Your task to perform on an android device: Open calendar and show me the first week of next month Image 0: 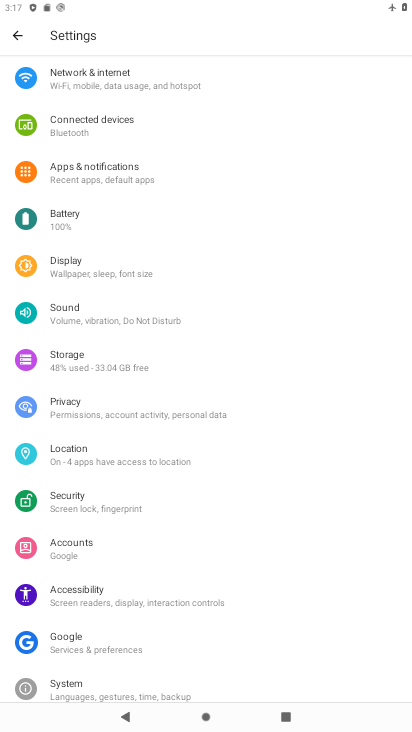
Step 0: press home button
Your task to perform on an android device: Open calendar and show me the first week of next month Image 1: 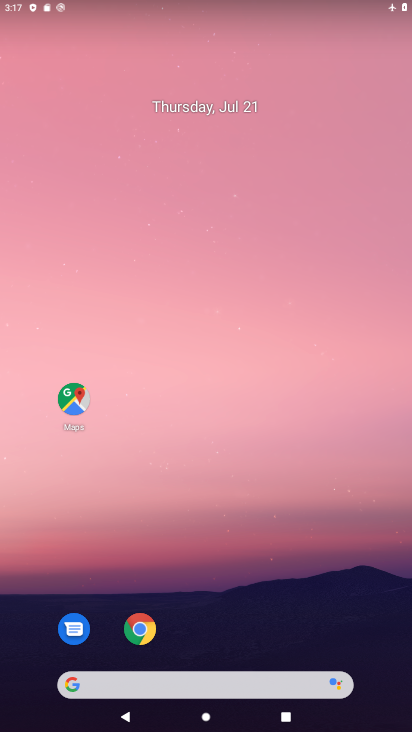
Step 1: drag from (369, 512) to (321, 99)
Your task to perform on an android device: Open calendar and show me the first week of next month Image 2: 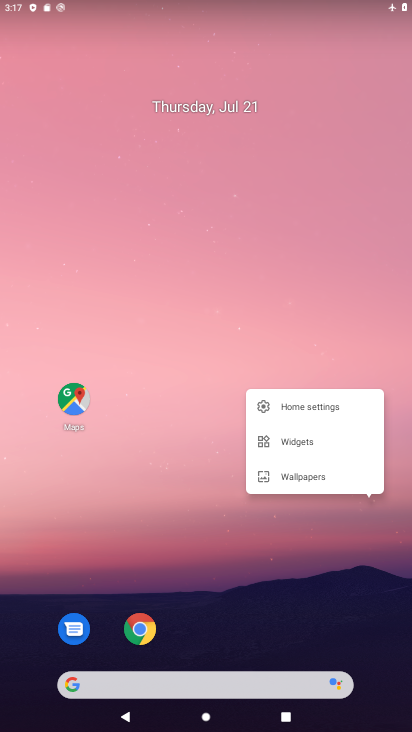
Step 2: click (321, 99)
Your task to perform on an android device: Open calendar and show me the first week of next month Image 3: 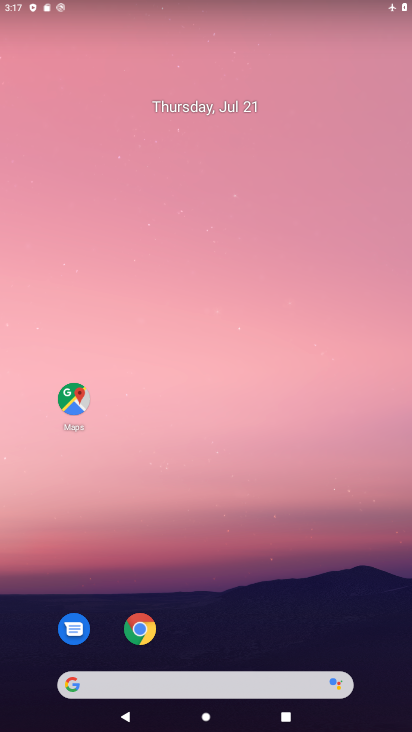
Step 3: drag from (278, 590) to (288, 0)
Your task to perform on an android device: Open calendar and show me the first week of next month Image 4: 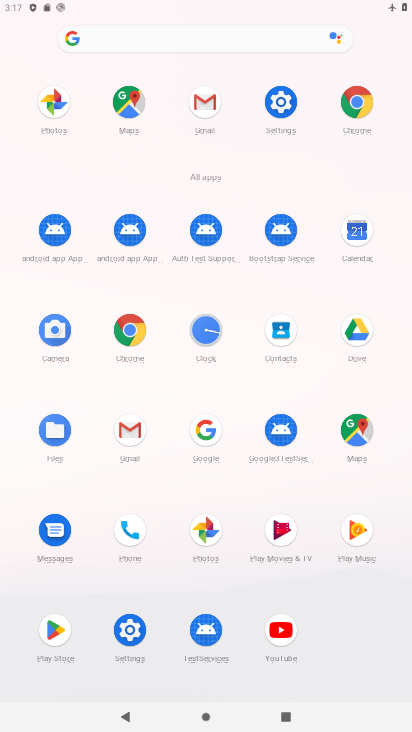
Step 4: click (356, 235)
Your task to perform on an android device: Open calendar and show me the first week of next month Image 5: 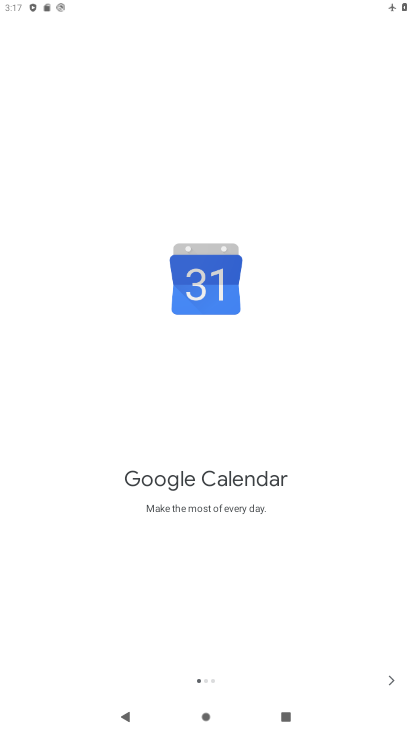
Step 5: click (395, 683)
Your task to perform on an android device: Open calendar and show me the first week of next month Image 6: 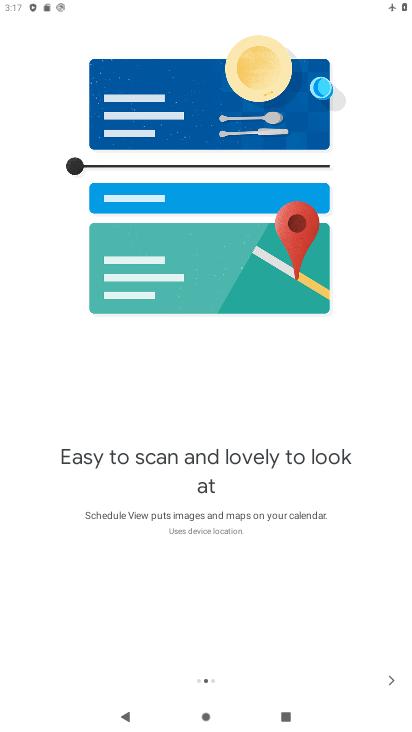
Step 6: click (395, 683)
Your task to perform on an android device: Open calendar and show me the first week of next month Image 7: 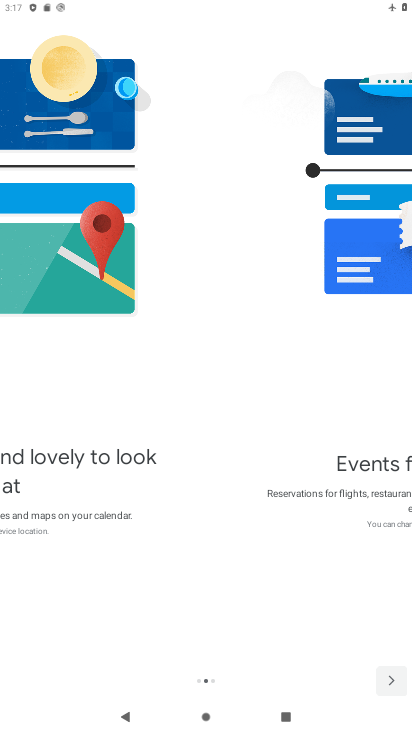
Step 7: click (395, 683)
Your task to perform on an android device: Open calendar and show me the first week of next month Image 8: 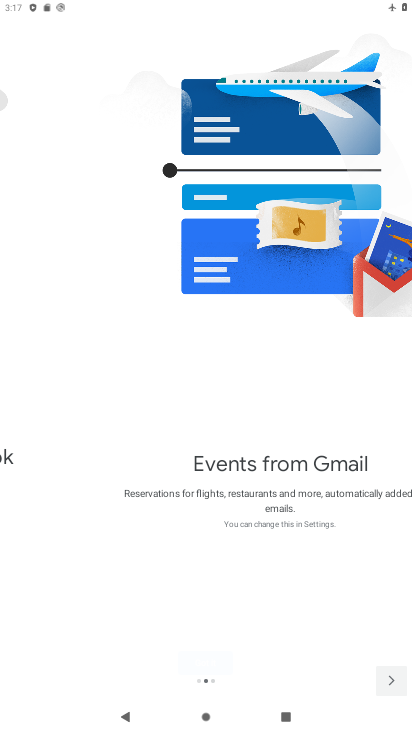
Step 8: click (395, 683)
Your task to perform on an android device: Open calendar and show me the first week of next month Image 9: 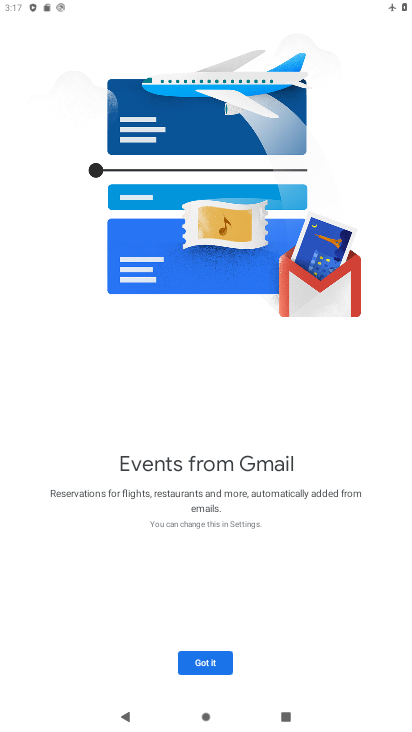
Step 9: click (220, 662)
Your task to perform on an android device: Open calendar and show me the first week of next month Image 10: 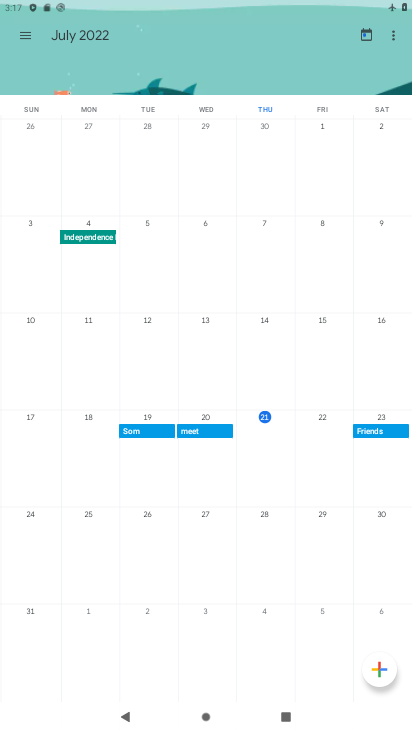
Step 10: click (22, 39)
Your task to perform on an android device: Open calendar and show me the first week of next month Image 11: 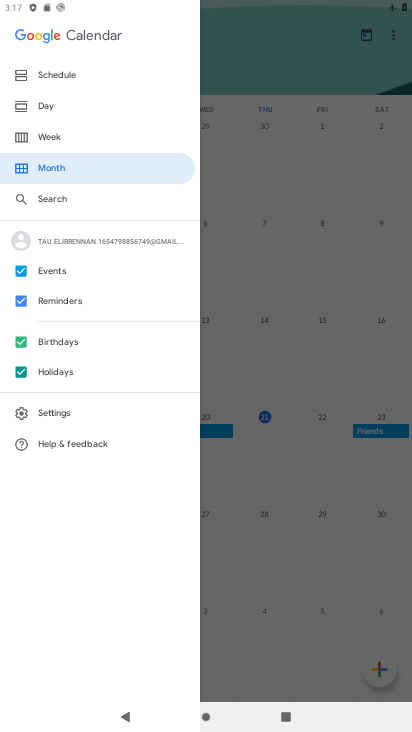
Step 11: click (52, 135)
Your task to perform on an android device: Open calendar and show me the first week of next month Image 12: 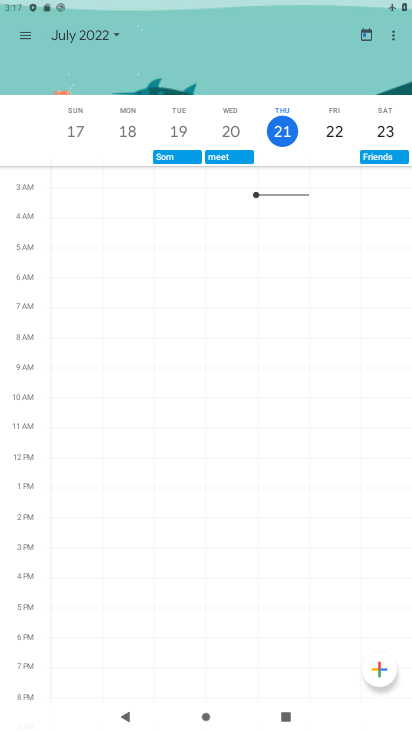
Step 12: click (112, 38)
Your task to perform on an android device: Open calendar and show me the first week of next month Image 13: 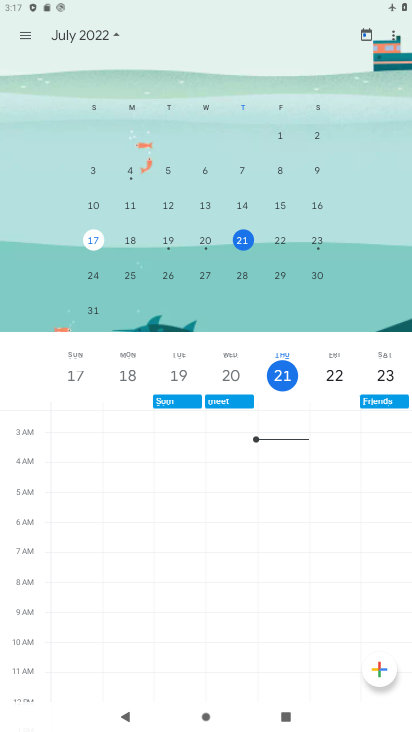
Step 13: drag from (344, 221) to (24, 177)
Your task to perform on an android device: Open calendar and show me the first week of next month Image 14: 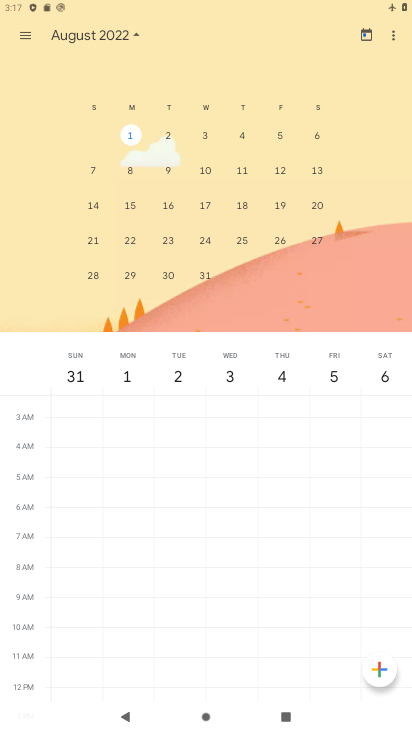
Step 14: click (164, 133)
Your task to perform on an android device: Open calendar and show me the first week of next month Image 15: 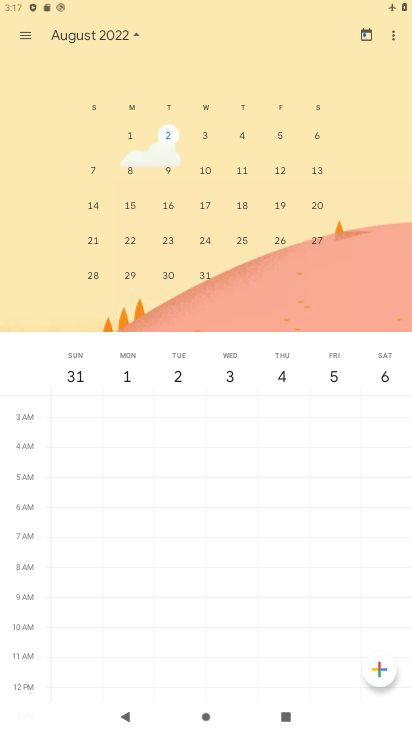
Step 15: task complete